Your task to perform on an android device: Open Google Image 0: 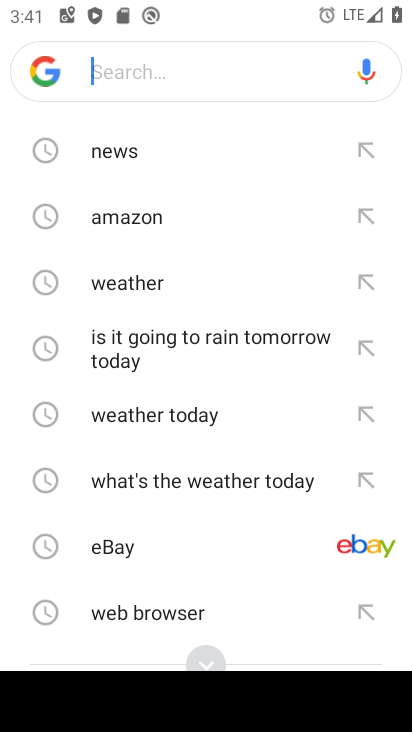
Step 0: press home button
Your task to perform on an android device: Open Google Image 1: 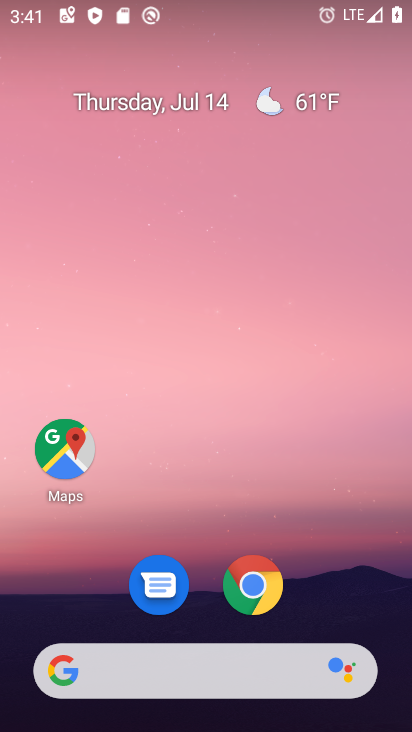
Step 1: click (258, 585)
Your task to perform on an android device: Open Google Image 2: 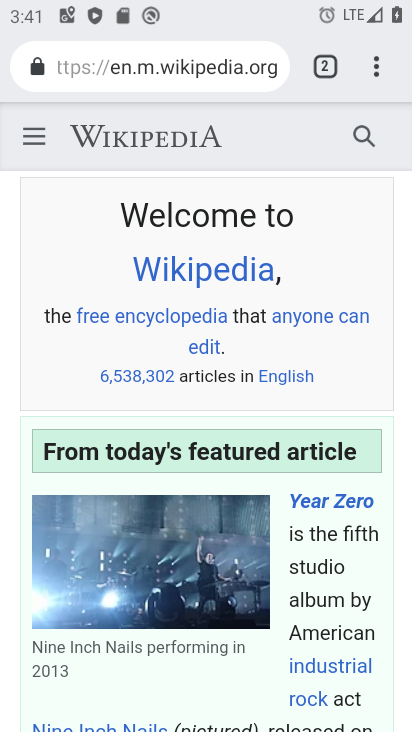
Step 2: press home button
Your task to perform on an android device: Open Google Image 3: 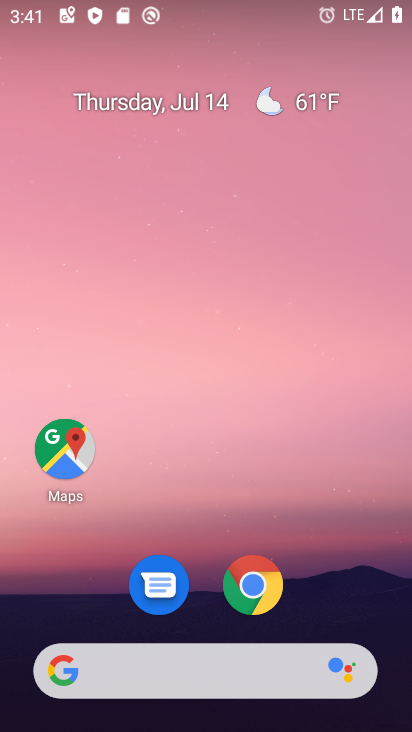
Step 3: click (280, 654)
Your task to perform on an android device: Open Google Image 4: 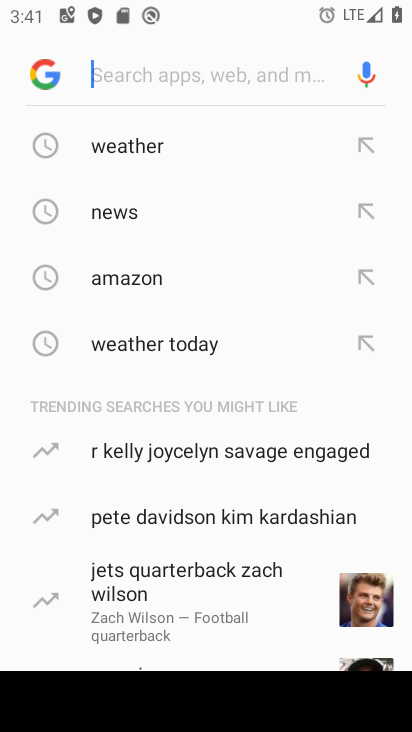
Step 4: click (40, 73)
Your task to perform on an android device: Open Google Image 5: 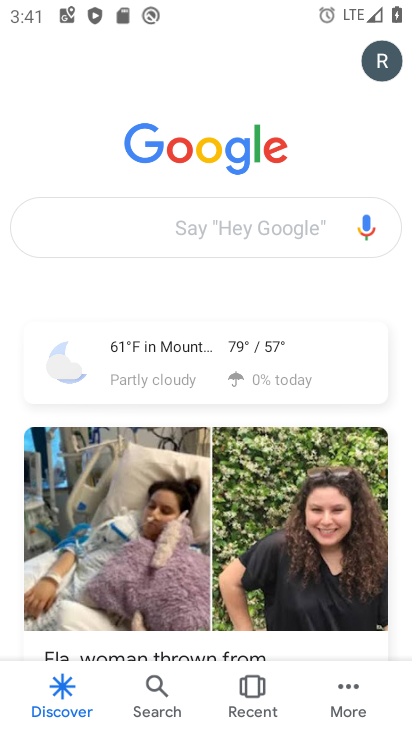
Step 5: task complete